Your task to perform on an android device: check the backup settings in the google photos Image 0: 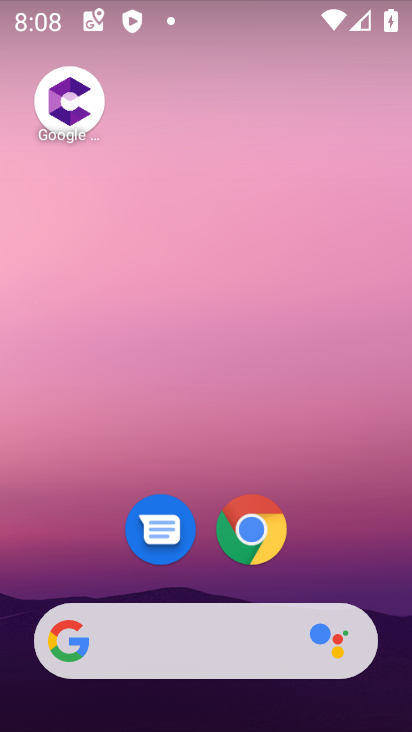
Step 0: drag from (221, 559) to (223, 131)
Your task to perform on an android device: check the backup settings in the google photos Image 1: 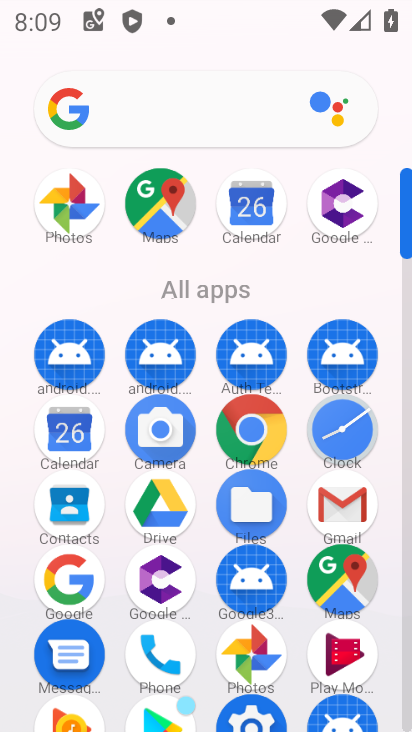
Step 1: click (231, 656)
Your task to perform on an android device: check the backup settings in the google photos Image 2: 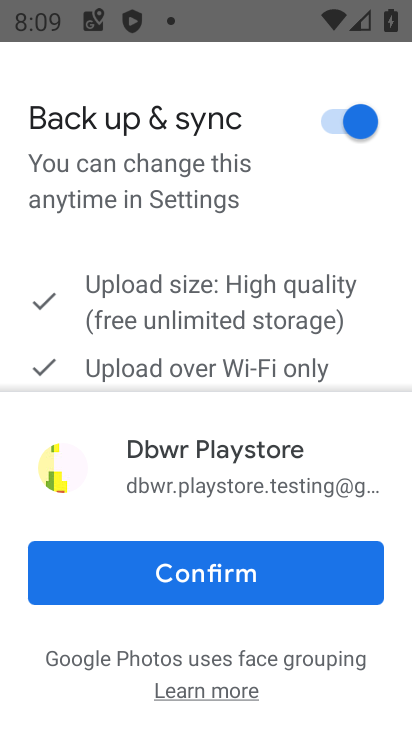
Step 2: click (265, 582)
Your task to perform on an android device: check the backup settings in the google photos Image 3: 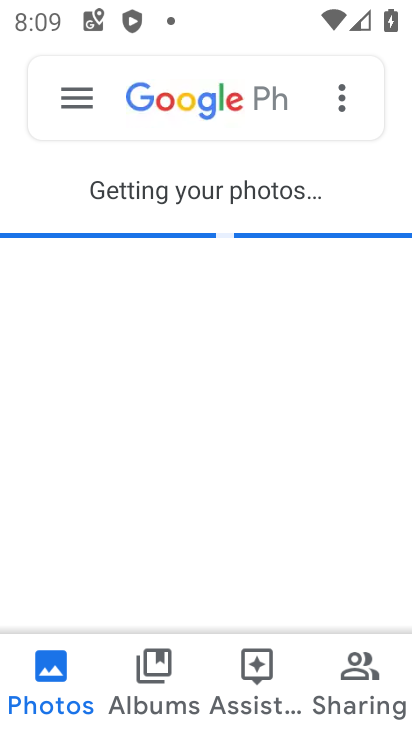
Step 3: click (68, 101)
Your task to perform on an android device: check the backup settings in the google photos Image 4: 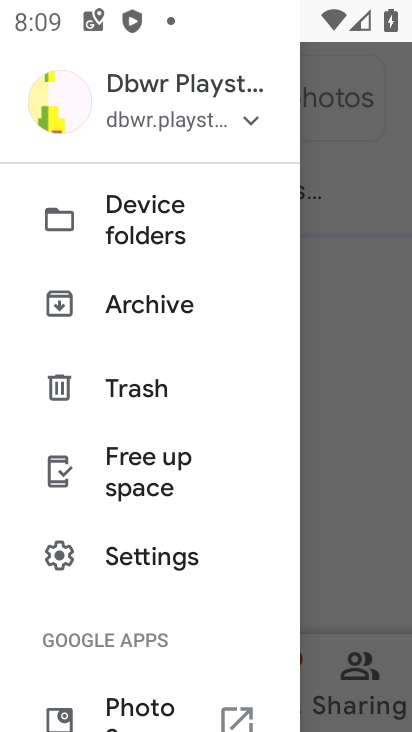
Step 4: click (114, 559)
Your task to perform on an android device: check the backup settings in the google photos Image 5: 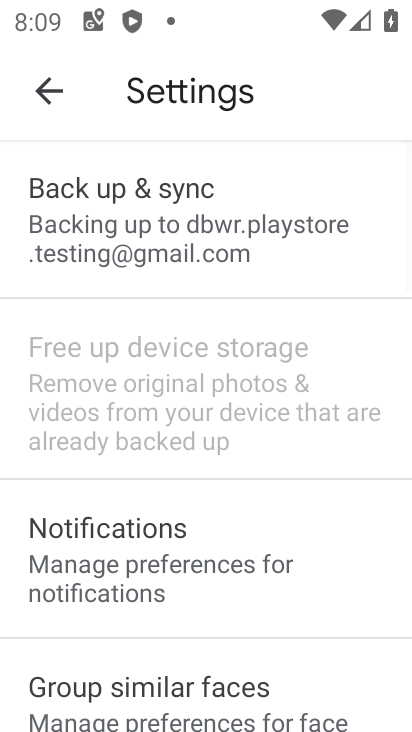
Step 5: click (110, 235)
Your task to perform on an android device: check the backup settings in the google photos Image 6: 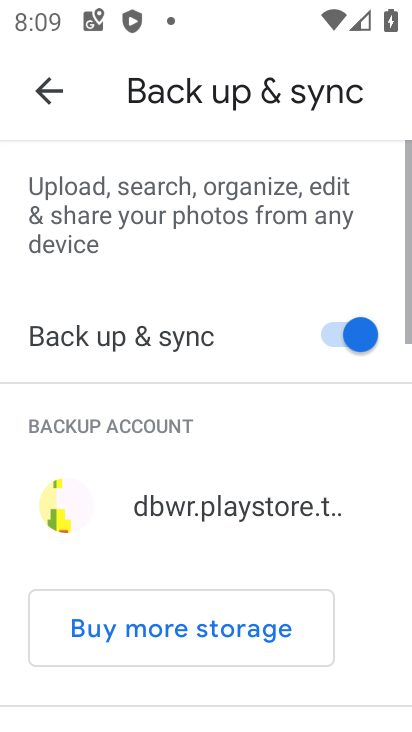
Step 6: task complete